Your task to perform on an android device: Search for sushi restaurants on Maps Image 0: 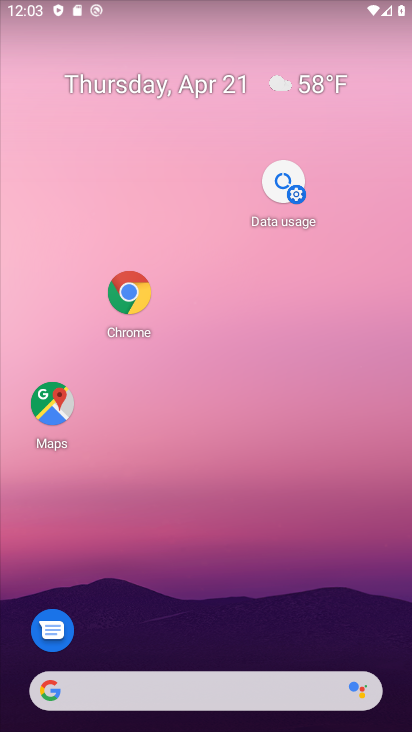
Step 0: click (44, 393)
Your task to perform on an android device: Search for sushi restaurants on Maps Image 1: 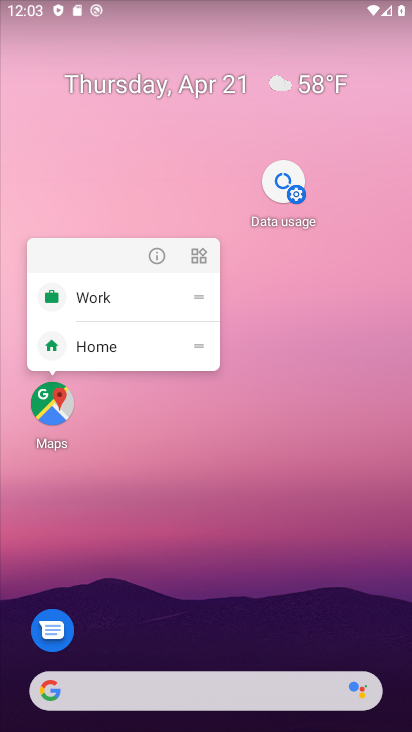
Step 1: click (50, 406)
Your task to perform on an android device: Search for sushi restaurants on Maps Image 2: 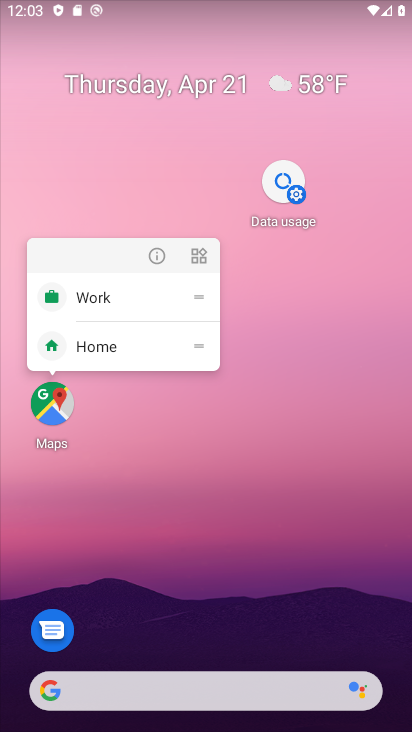
Step 2: click (50, 406)
Your task to perform on an android device: Search for sushi restaurants on Maps Image 3: 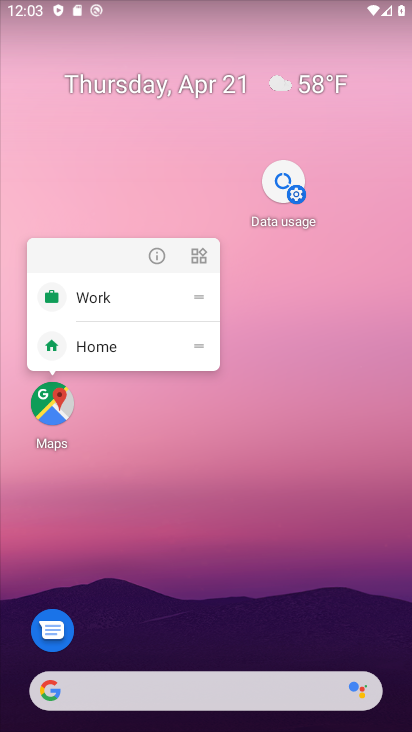
Step 3: click (50, 400)
Your task to perform on an android device: Search for sushi restaurants on Maps Image 4: 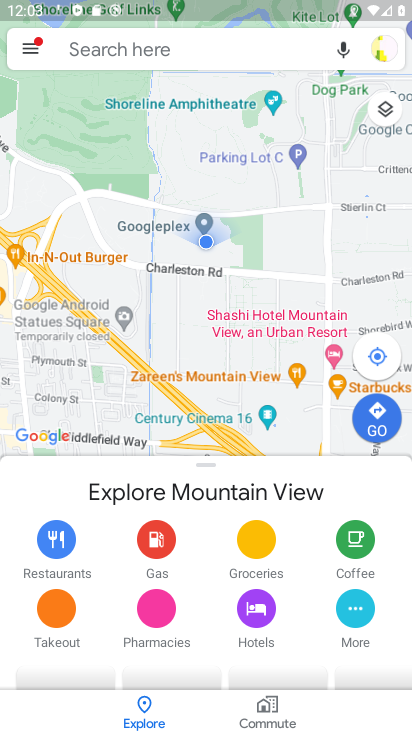
Step 4: click (157, 54)
Your task to perform on an android device: Search for sushi restaurants on Maps Image 5: 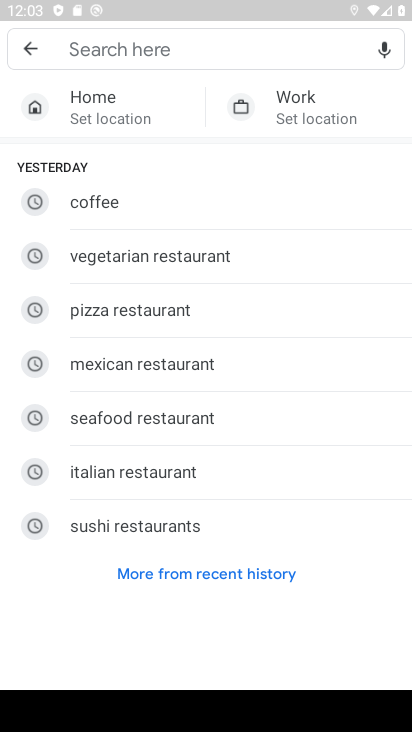
Step 5: click (122, 532)
Your task to perform on an android device: Search for sushi restaurants on Maps Image 6: 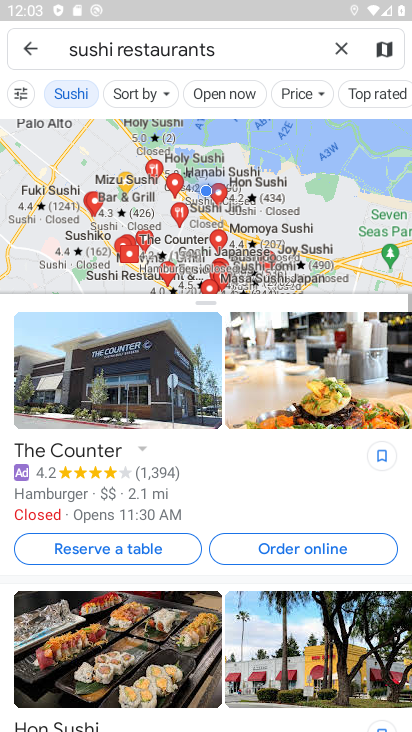
Step 6: task complete